Your task to perform on an android device: Open Reddit.com Image 0: 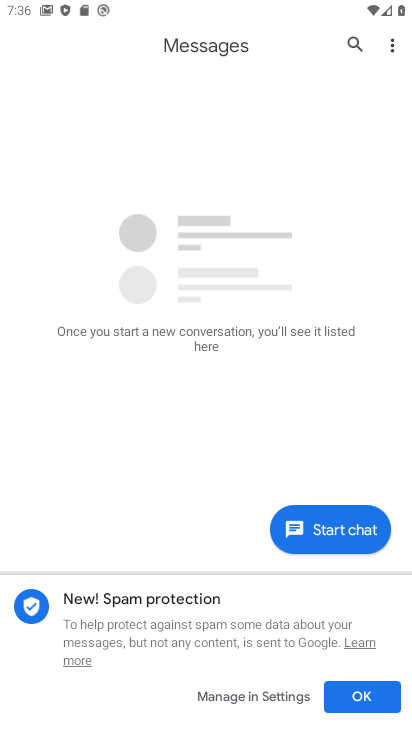
Step 0: press home button
Your task to perform on an android device: Open Reddit.com Image 1: 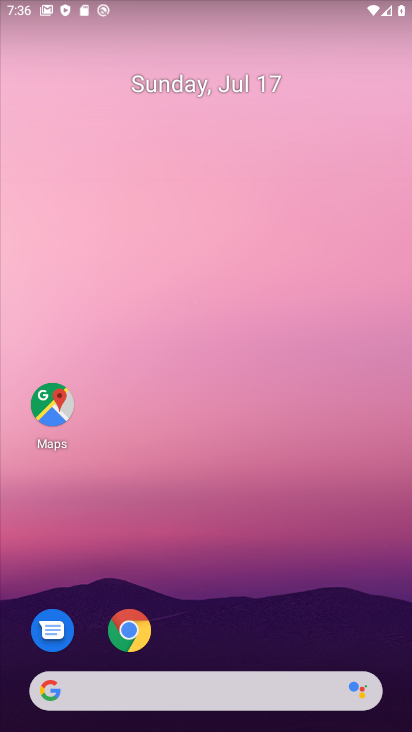
Step 1: click (134, 627)
Your task to perform on an android device: Open Reddit.com Image 2: 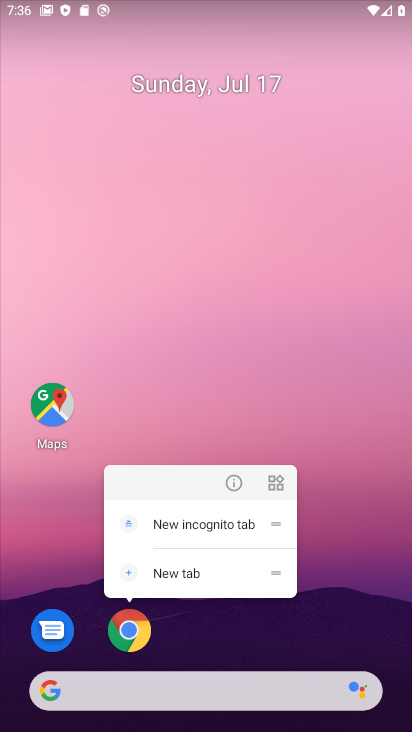
Step 2: click (140, 625)
Your task to perform on an android device: Open Reddit.com Image 3: 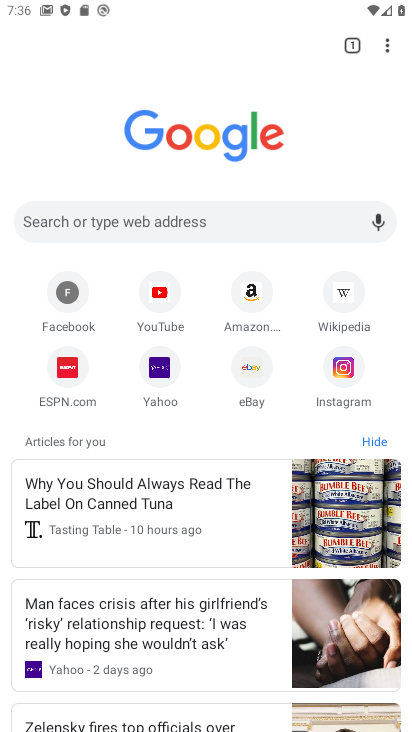
Step 3: click (173, 218)
Your task to perform on an android device: Open Reddit.com Image 4: 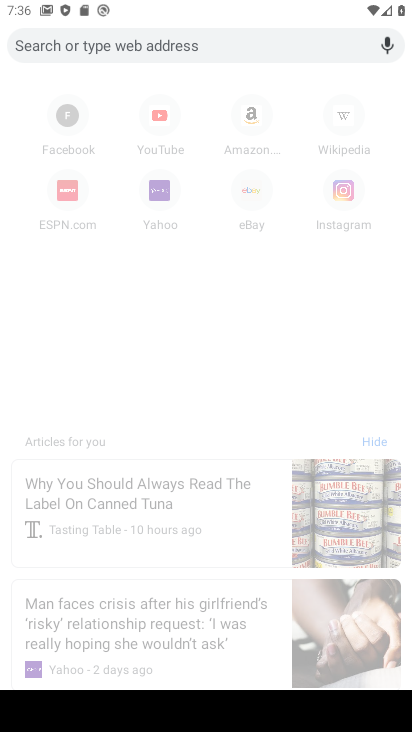
Step 4: type " Reddit.com "
Your task to perform on an android device: Open Reddit.com Image 5: 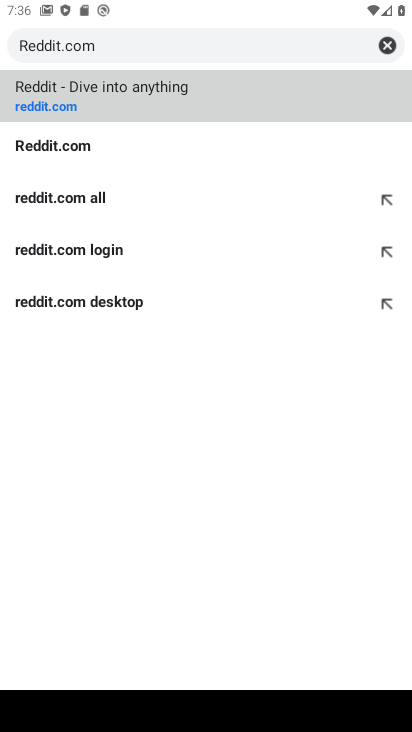
Step 5: click (198, 79)
Your task to perform on an android device: Open Reddit.com Image 6: 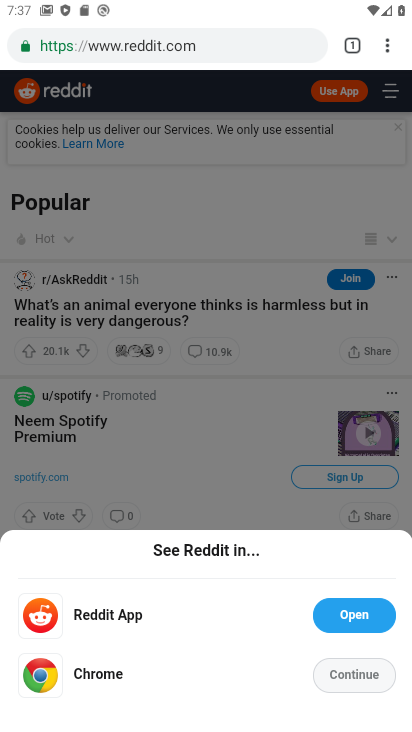
Step 6: task complete